Your task to perform on an android device: Play the last video I watched on Youtube Image 0: 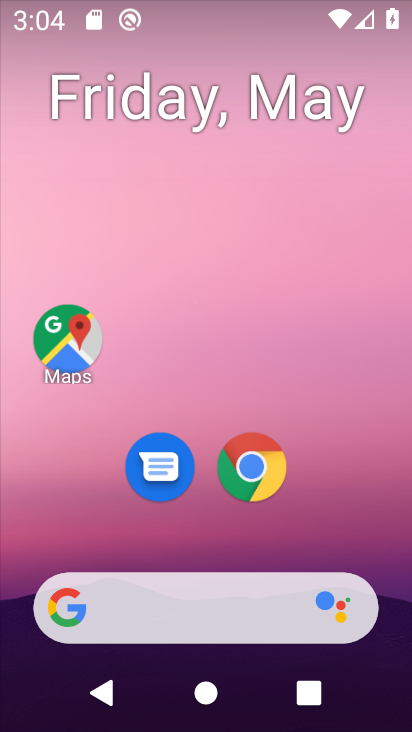
Step 0: drag from (343, 474) to (277, 31)
Your task to perform on an android device: Play the last video I watched on Youtube Image 1: 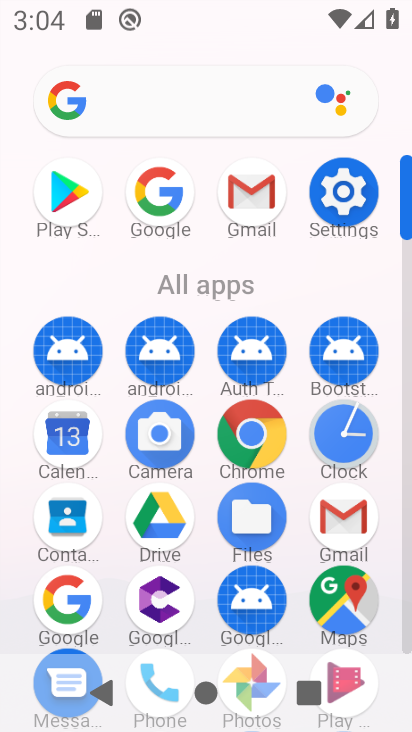
Step 1: drag from (201, 588) to (206, 127)
Your task to perform on an android device: Play the last video I watched on Youtube Image 2: 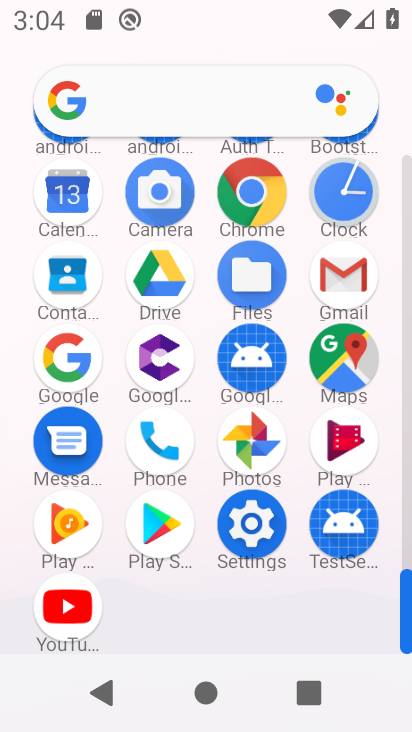
Step 2: click (72, 622)
Your task to perform on an android device: Play the last video I watched on Youtube Image 3: 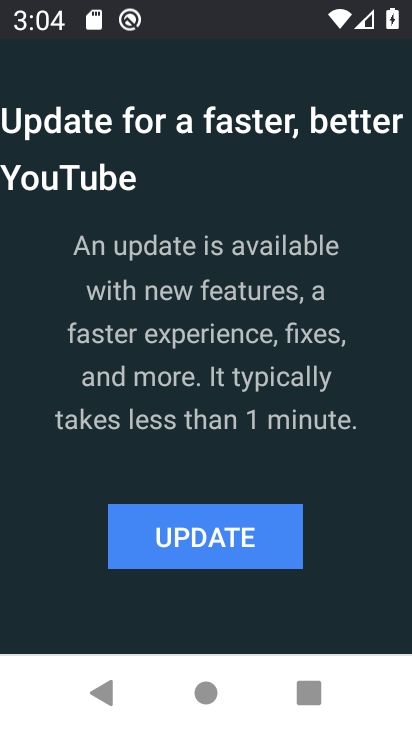
Step 3: click (249, 528)
Your task to perform on an android device: Play the last video I watched on Youtube Image 4: 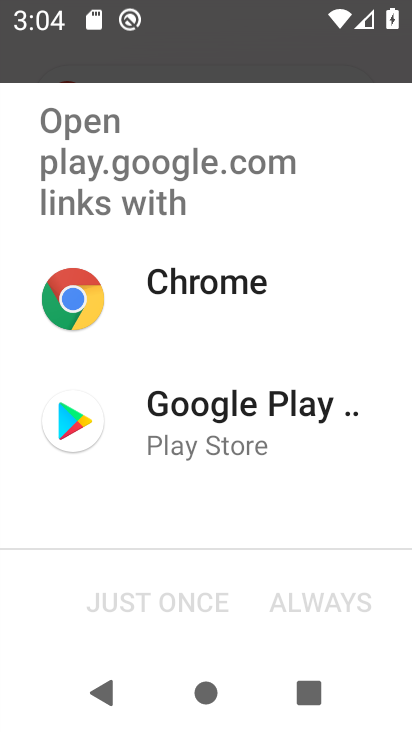
Step 4: click (195, 421)
Your task to perform on an android device: Play the last video I watched on Youtube Image 5: 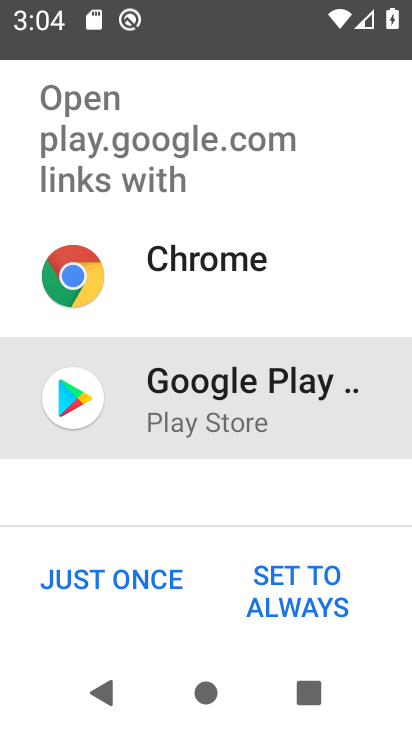
Step 5: click (161, 580)
Your task to perform on an android device: Play the last video I watched on Youtube Image 6: 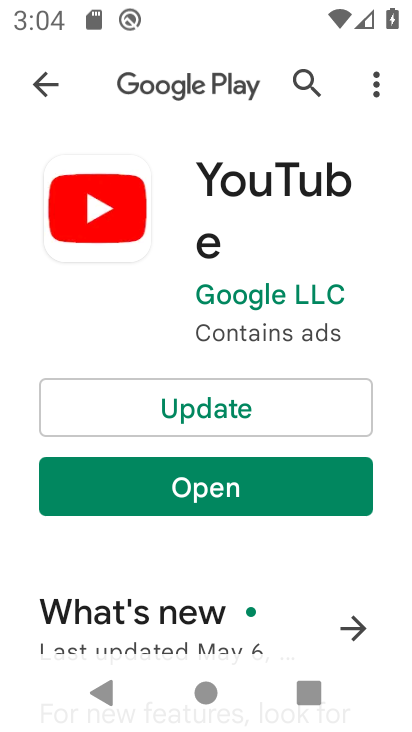
Step 6: click (265, 401)
Your task to perform on an android device: Play the last video I watched on Youtube Image 7: 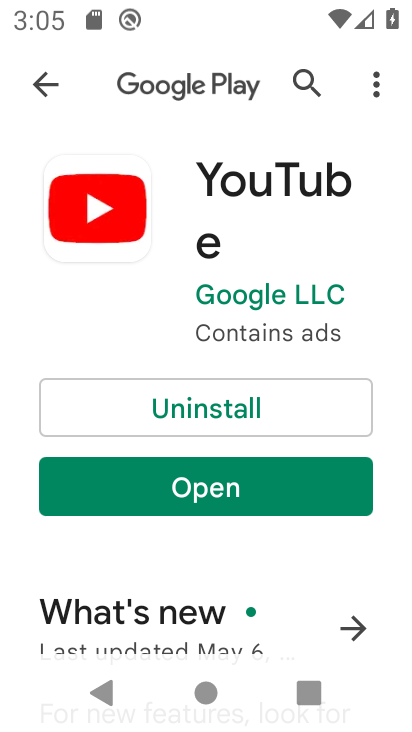
Step 7: click (262, 498)
Your task to perform on an android device: Play the last video I watched on Youtube Image 8: 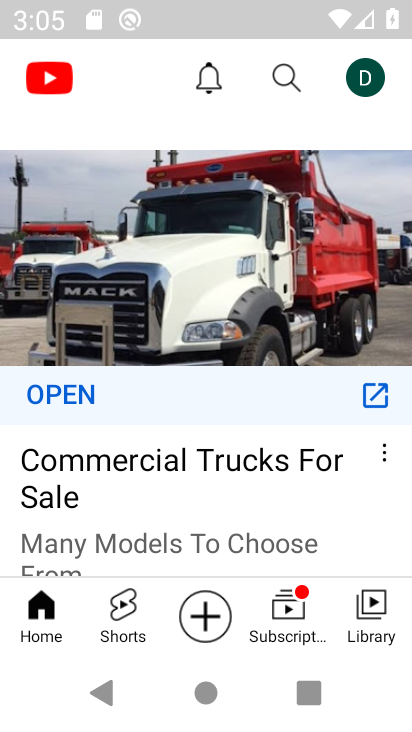
Step 8: click (376, 612)
Your task to perform on an android device: Play the last video I watched on Youtube Image 9: 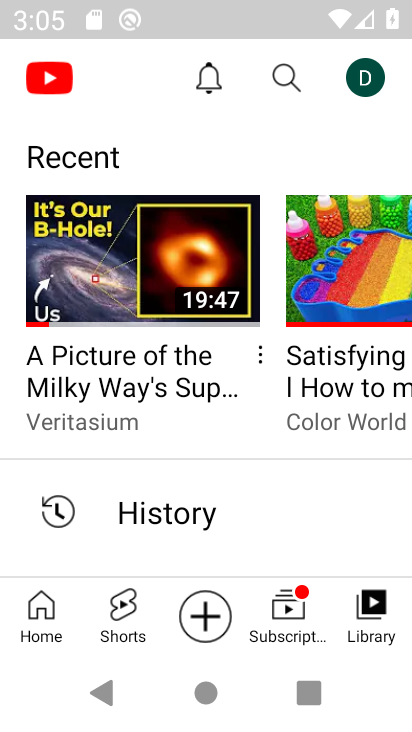
Step 9: click (103, 274)
Your task to perform on an android device: Play the last video I watched on Youtube Image 10: 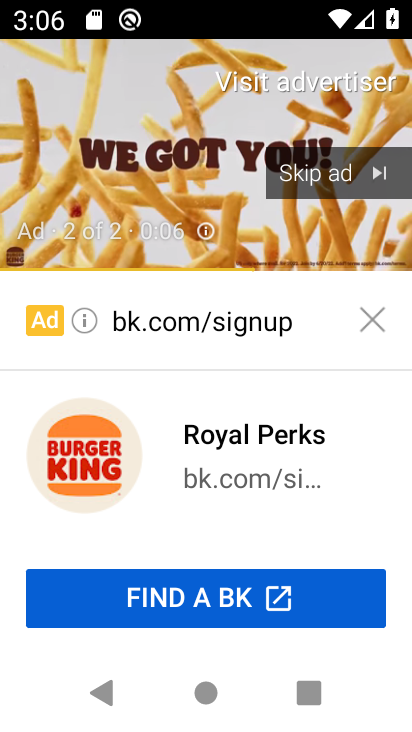
Step 10: click (313, 182)
Your task to perform on an android device: Play the last video I watched on Youtube Image 11: 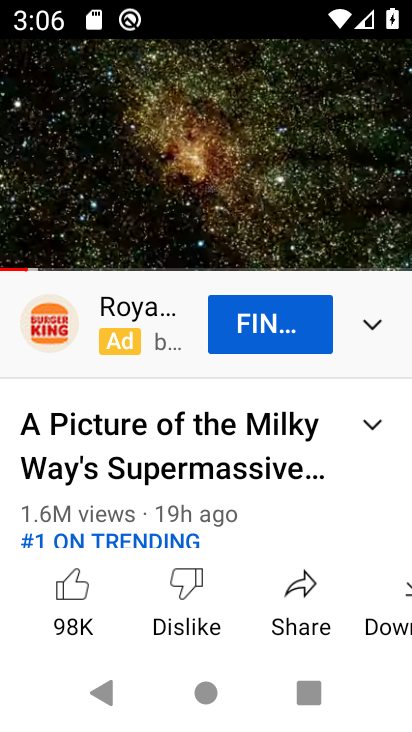
Step 11: task complete